Your task to perform on an android device: toggle javascript in the chrome app Image 0: 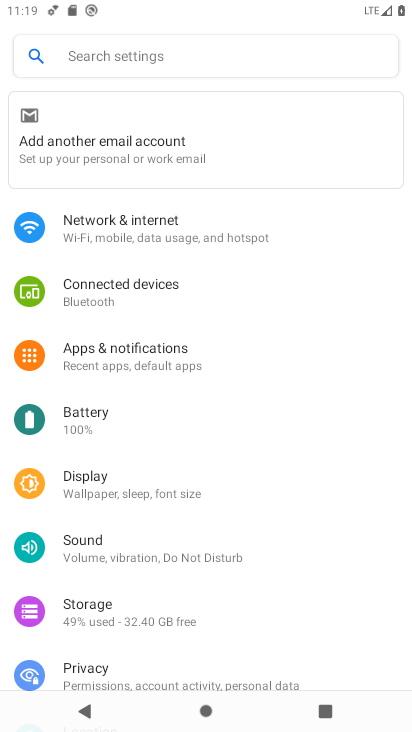
Step 0: press home button
Your task to perform on an android device: toggle javascript in the chrome app Image 1: 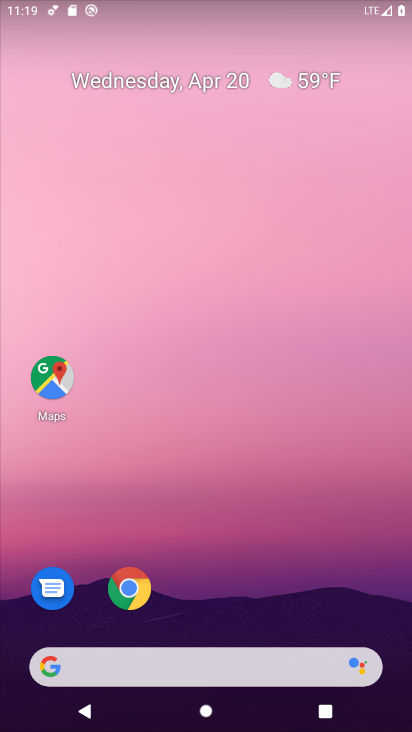
Step 1: click (128, 593)
Your task to perform on an android device: toggle javascript in the chrome app Image 2: 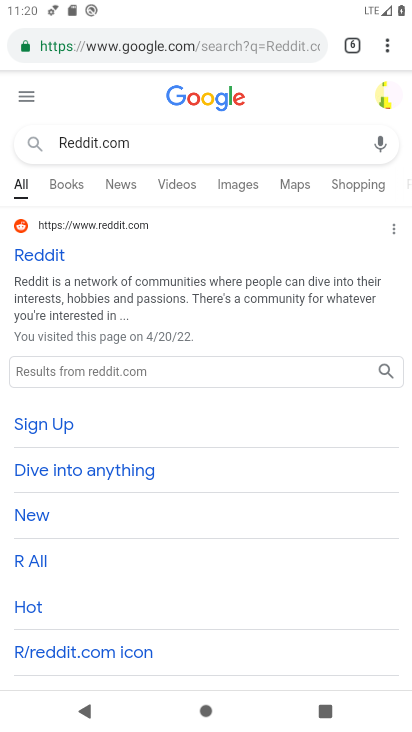
Step 2: click (385, 44)
Your task to perform on an android device: toggle javascript in the chrome app Image 3: 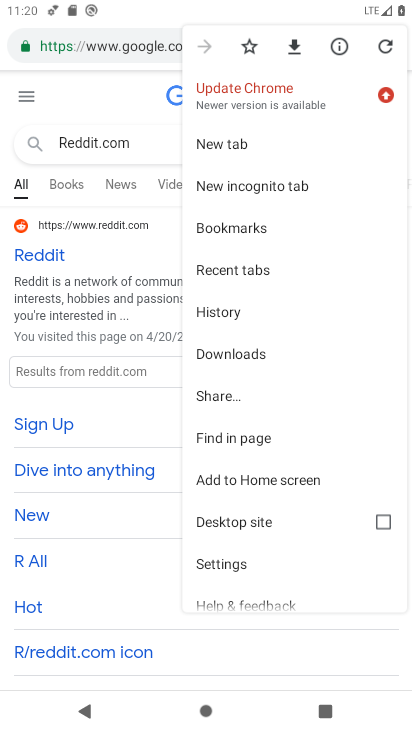
Step 3: click (231, 564)
Your task to perform on an android device: toggle javascript in the chrome app Image 4: 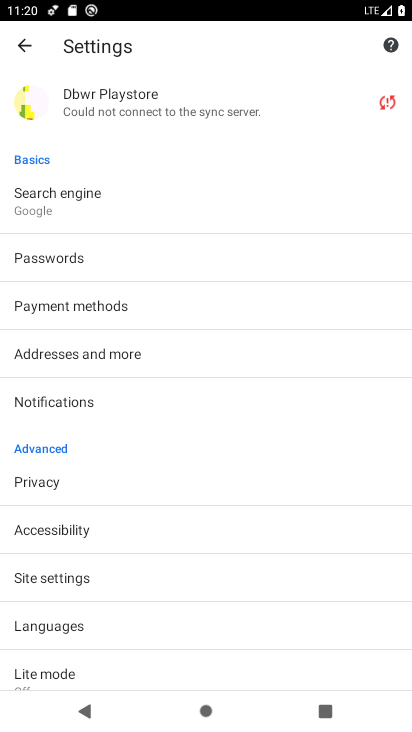
Step 4: click (47, 580)
Your task to perform on an android device: toggle javascript in the chrome app Image 5: 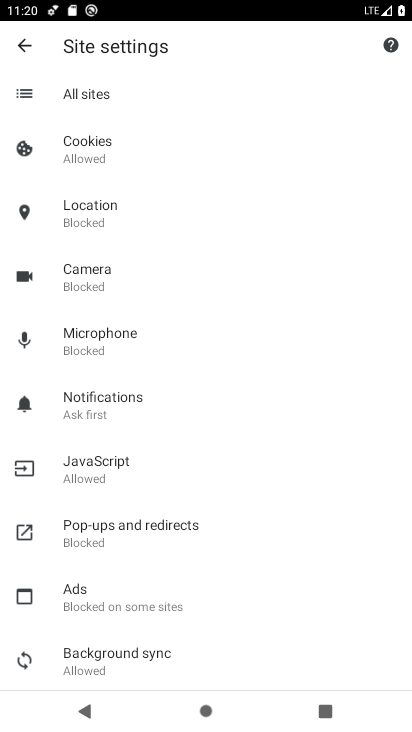
Step 5: click (99, 463)
Your task to perform on an android device: toggle javascript in the chrome app Image 6: 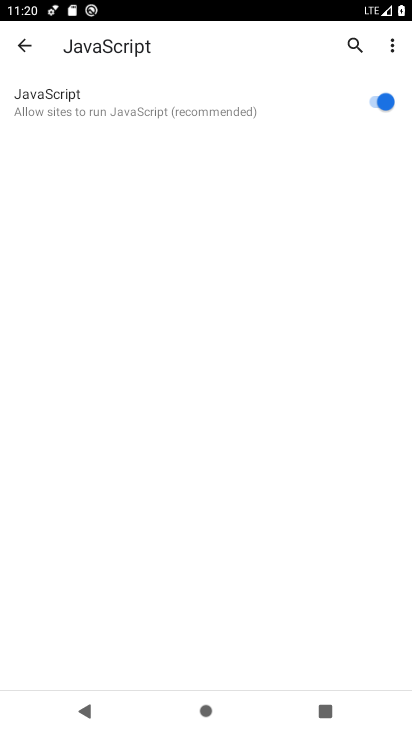
Step 6: click (390, 104)
Your task to perform on an android device: toggle javascript in the chrome app Image 7: 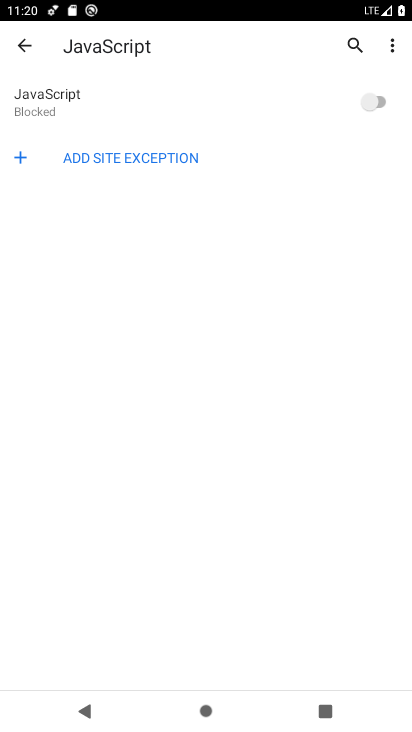
Step 7: task complete